Your task to perform on an android device: Go to Google maps Image 0: 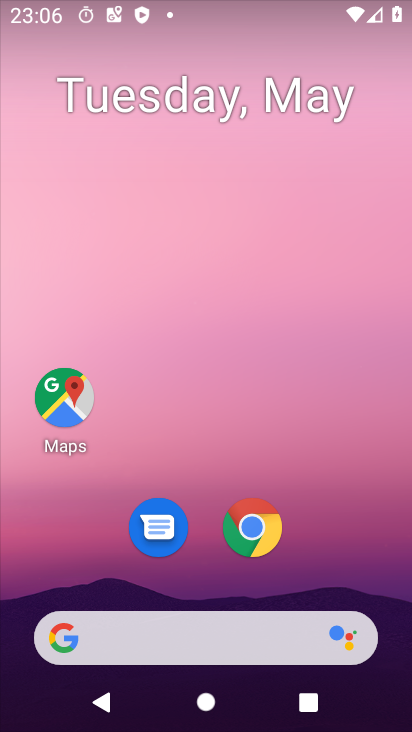
Step 0: click (207, 267)
Your task to perform on an android device: Go to Google maps Image 1: 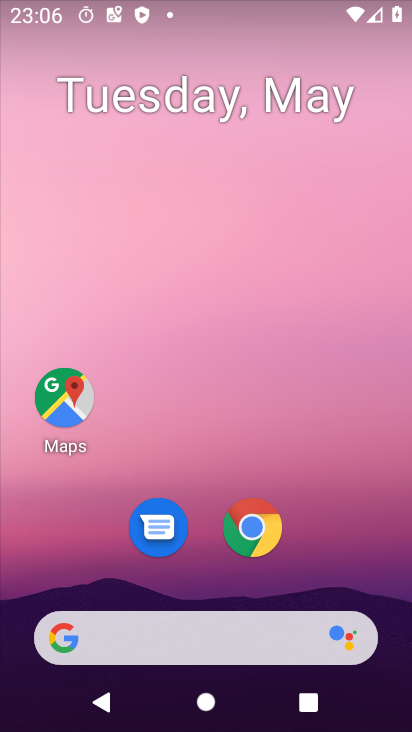
Step 1: drag from (204, 542) to (192, 81)
Your task to perform on an android device: Go to Google maps Image 2: 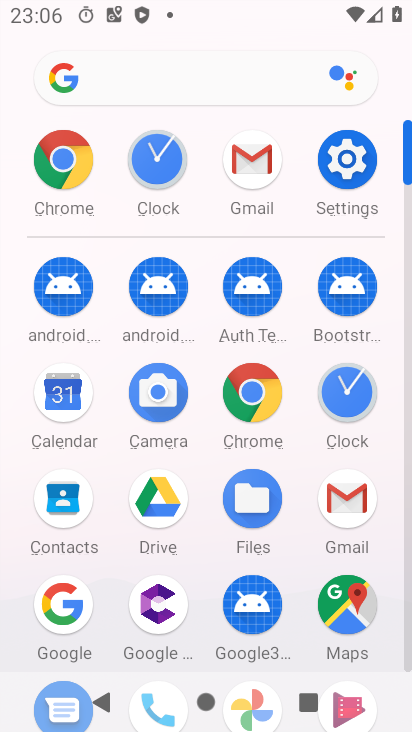
Step 2: drag from (205, 589) to (200, 147)
Your task to perform on an android device: Go to Google maps Image 3: 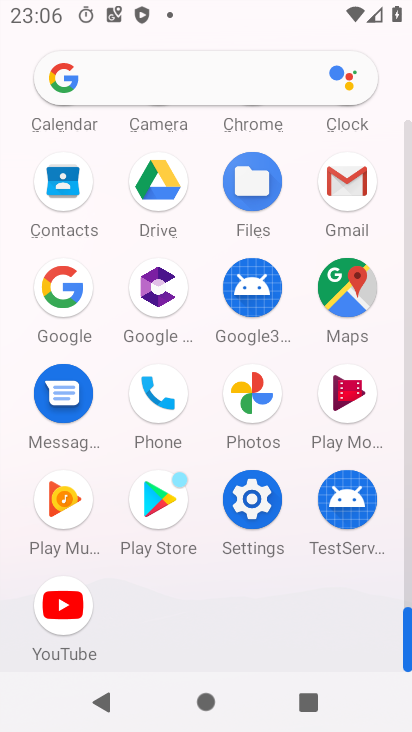
Step 3: click (347, 305)
Your task to perform on an android device: Go to Google maps Image 4: 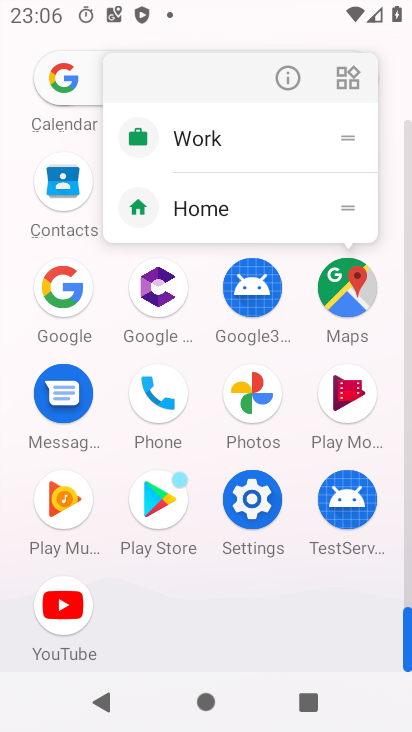
Step 4: click (292, 82)
Your task to perform on an android device: Go to Google maps Image 5: 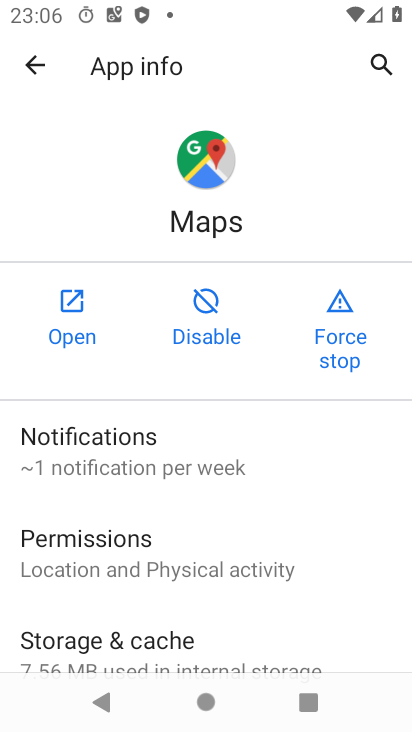
Step 5: click (58, 322)
Your task to perform on an android device: Go to Google maps Image 6: 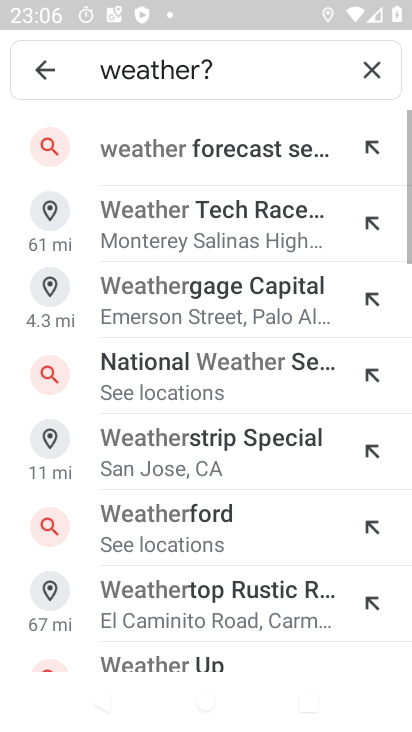
Step 6: drag from (199, 461) to (251, 252)
Your task to perform on an android device: Go to Google maps Image 7: 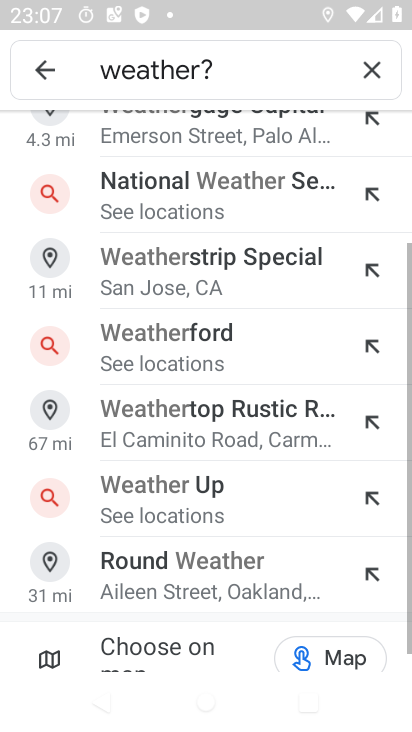
Step 7: click (380, 72)
Your task to perform on an android device: Go to Google maps Image 8: 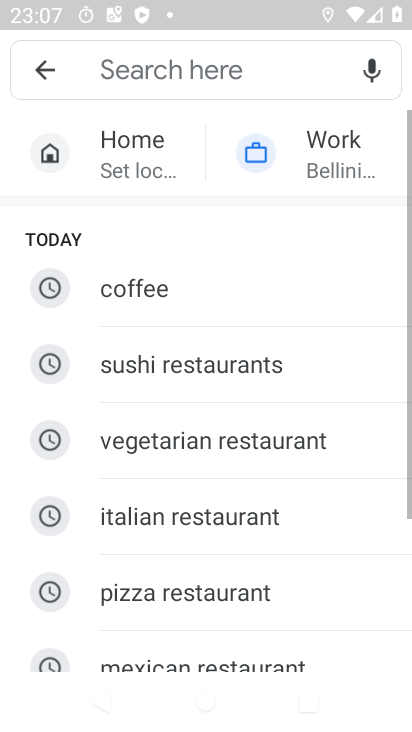
Step 8: click (33, 78)
Your task to perform on an android device: Go to Google maps Image 9: 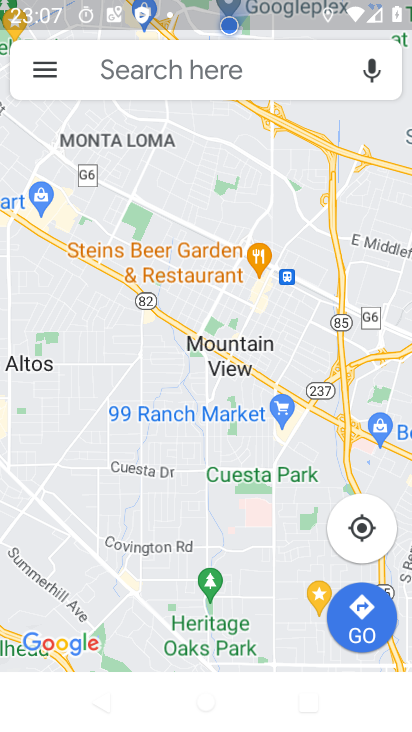
Step 9: click (131, 78)
Your task to perform on an android device: Go to Google maps Image 10: 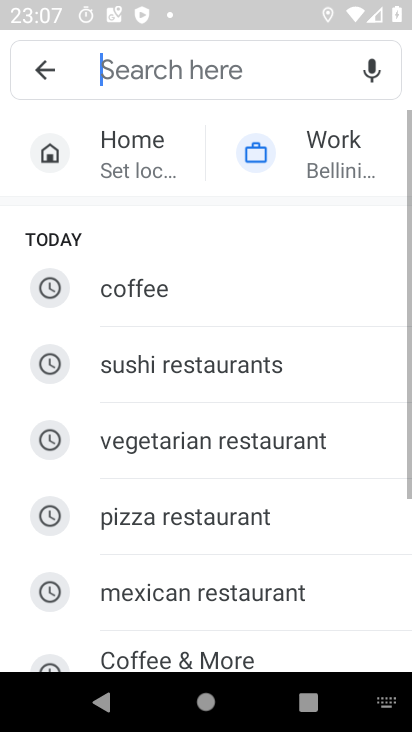
Step 10: click (43, 78)
Your task to perform on an android device: Go to Google maps Image 11: 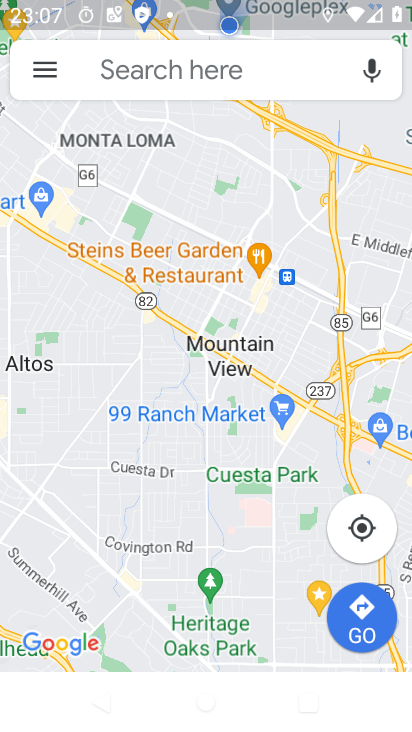
Step 11: task complete